Your task to perform on an android device: uninstall "Firefox Browser" Image 0: 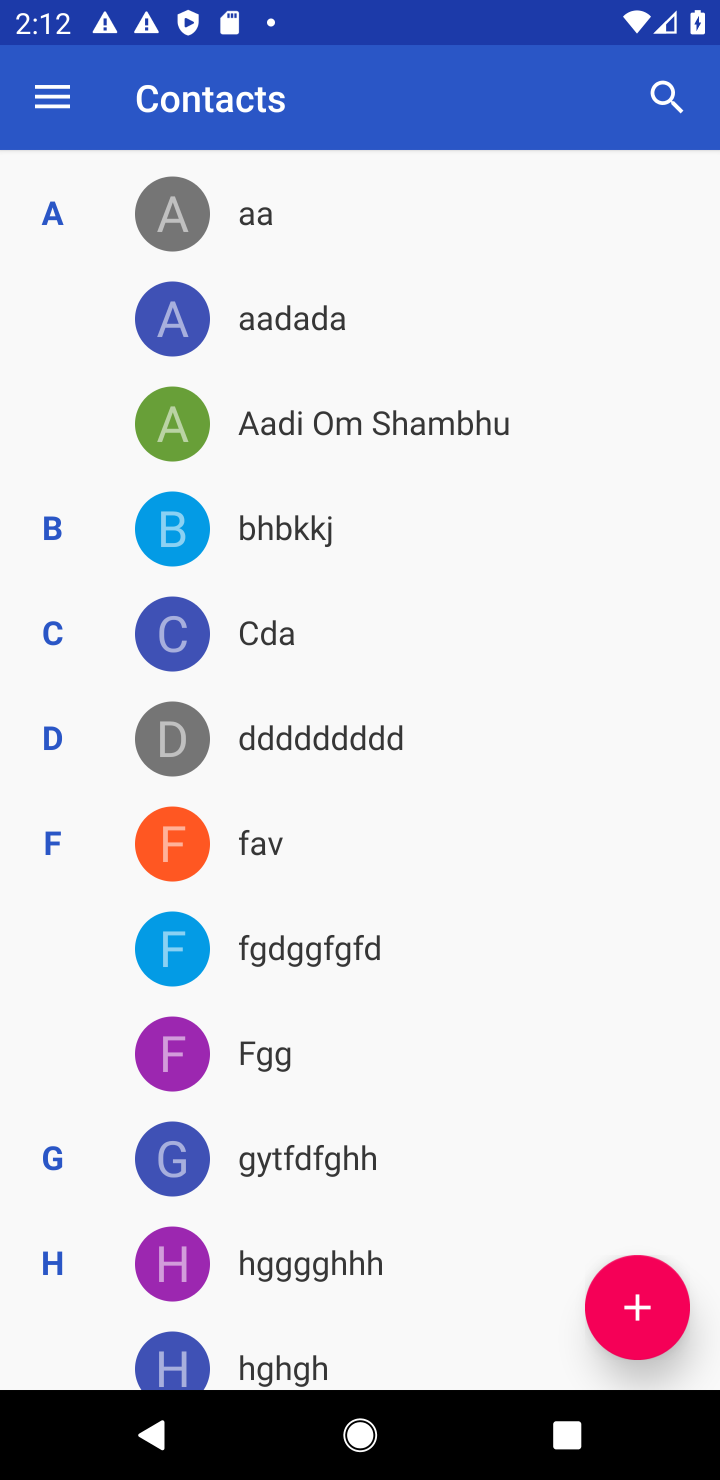
Step 0: press home button
Your task to perform on an android device: uninstall "Firefox Browser" Image 1: 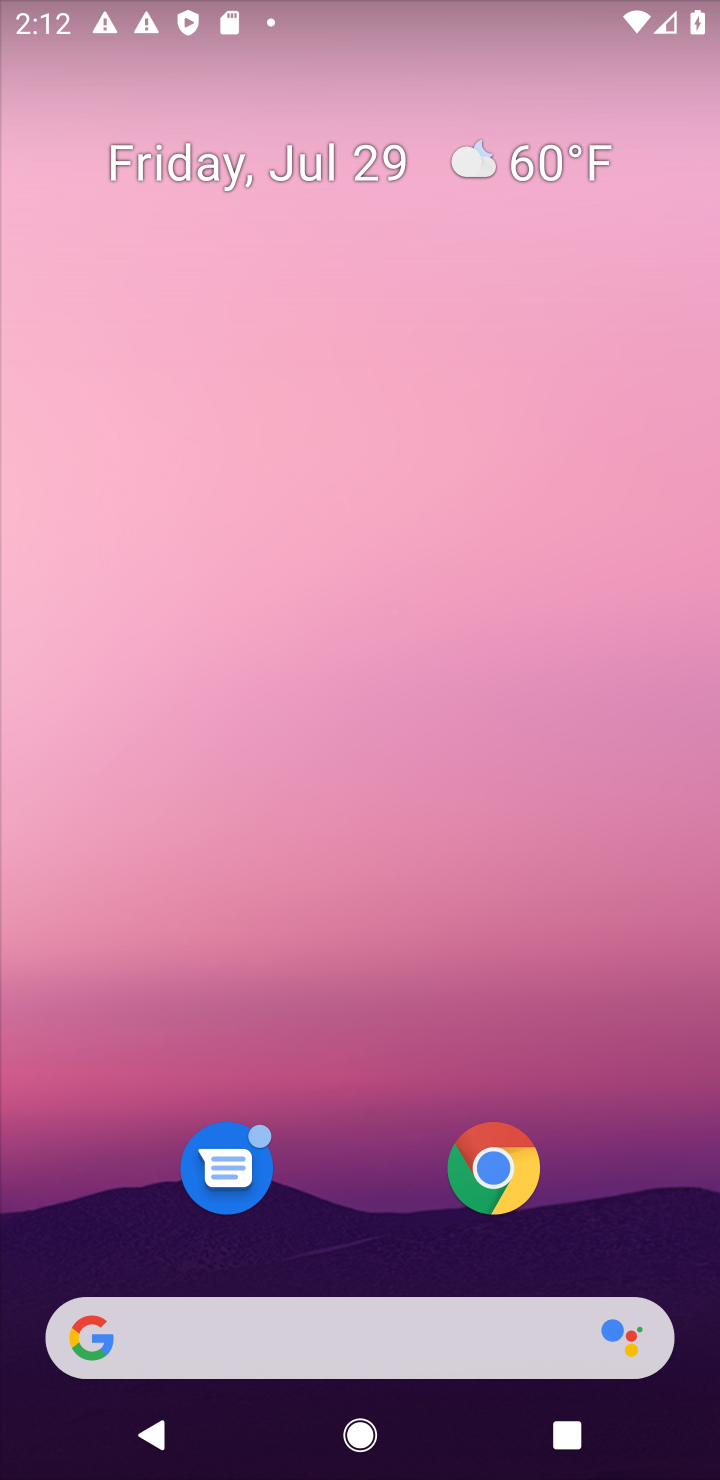
Step 1: task complete